Your task to perform on an android device: set an alarm Image 0: 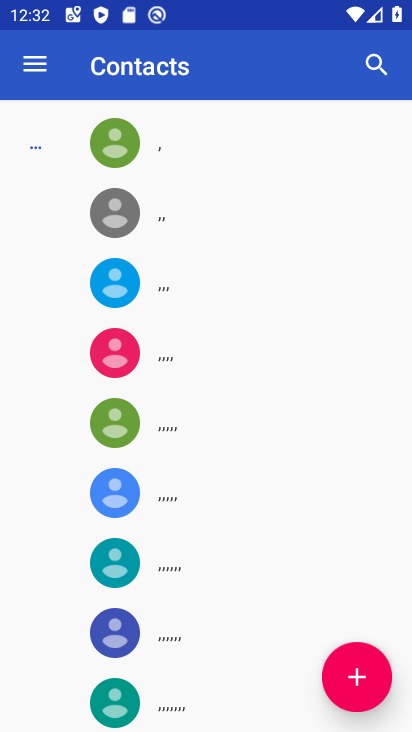
Step 0: press home button
Your task to perform on an android device: set an alarm Image 1: 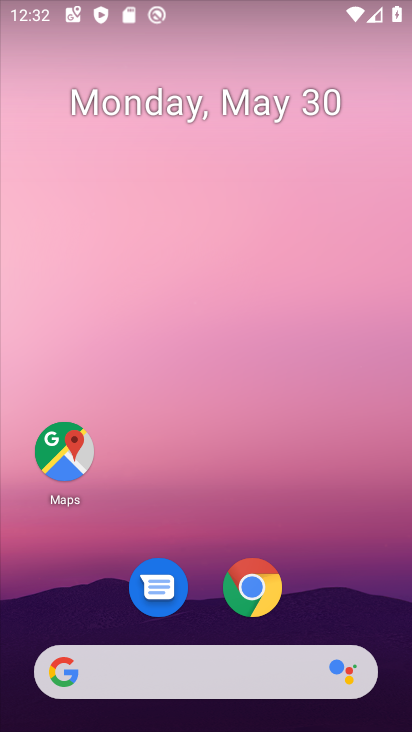
Step 1: drag from (157, 727) to (30, 16)
Your task to perform on an android device: set an alarm Image 2: 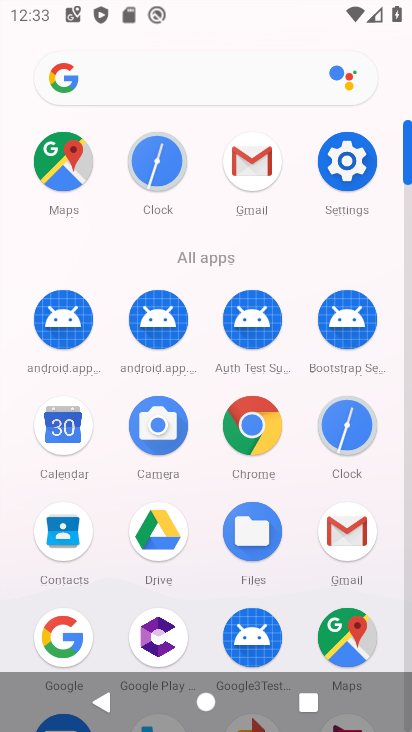
Step 2: click (149, 161)
Your task to perform on an android device: set an alarm Image 3: 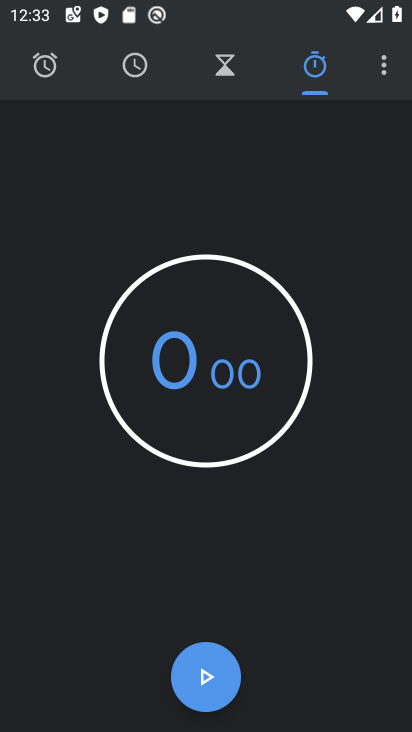
Step 3: click (44, 70)
Your task to perform on an android device: set an alarm Image 4: 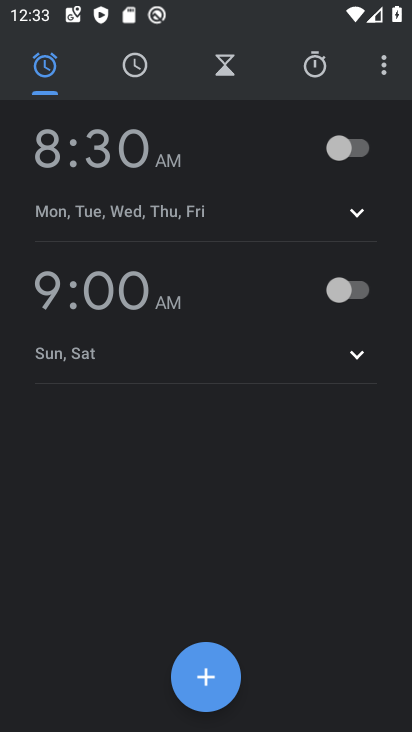
Step 4: click (355, 288)
Your task to perform on an android device: set an alarm Image 5: 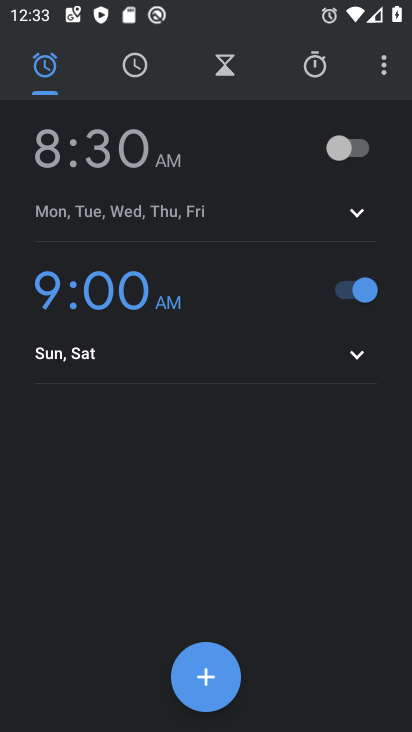
Step 5: task complete